Your task to perform on an android device: open app "DoorDash - Dasher" (install if not already installed) Image 0: 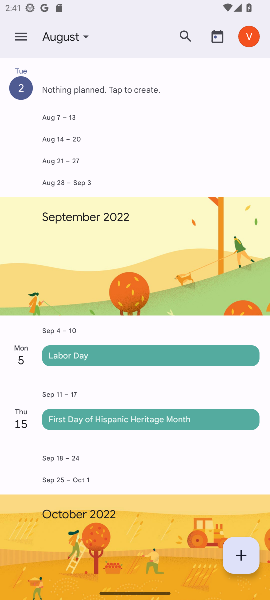
Step 0: press home button
Your task to perform on an android device: open app "DoorDash - Dasher" (install if not already installed) Image 1: 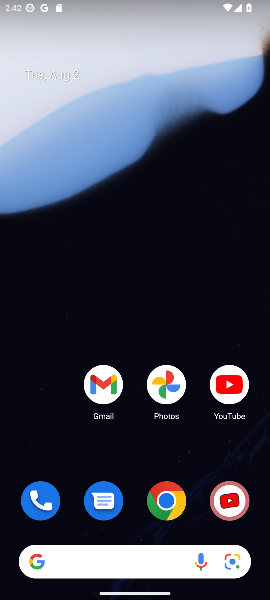
Step 1: drag from (152, 444) to (151, 11)
Your task to perform on an android device: open app "DoorDash - Dasher" (install if not already installed) Image 2: 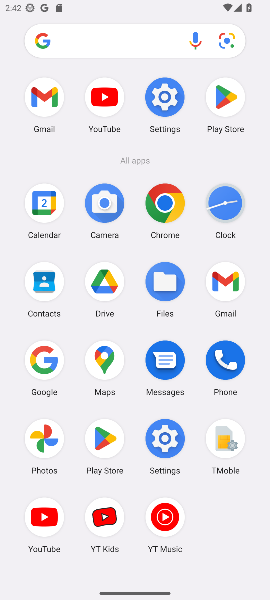
Step 2: click (221, 98)
Your task to perform on an android device: open app "DoorDash - Dasher" (install if not already installed) Image 3: 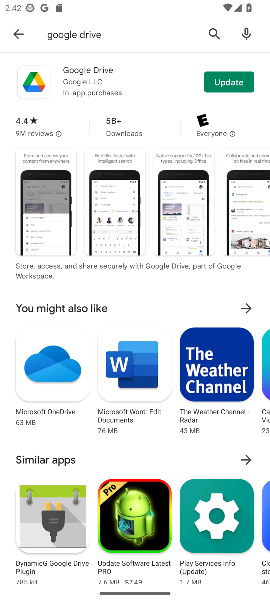
Step 3: click (217, 34)
Your task to perform on an android device: open app "DoorDash - Dasher" (install if not already installed) Image 4: 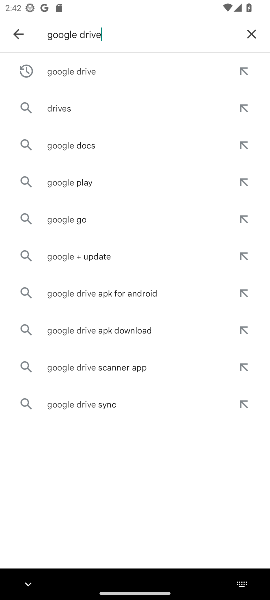
Step 4: click (254, 38)
Your task to perform on an android device: open app "DoorDash - Dasher" (install if not already installed) Image 5: 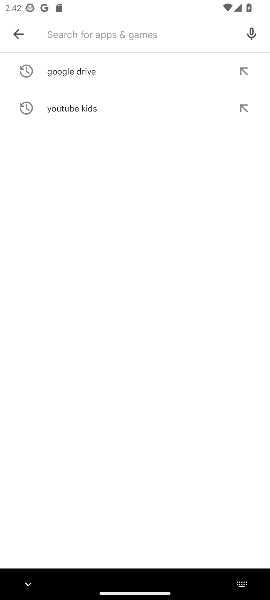
Step 5: type "DoorDash - Dasher"
Your task to perform on an android device: open app "DoorDash - Dasher" (install if not already installed) Image 6: 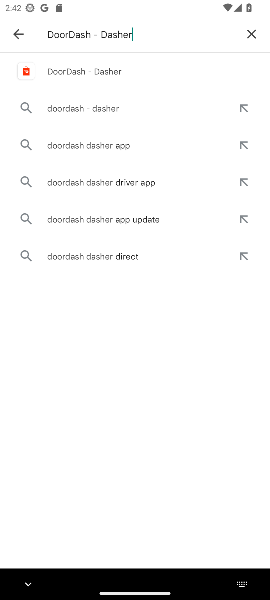
Step 6: click (61, 74)
Your task to perform on an android device: open app "DoorDash - Dasher" (install if not already installed) Image 7: 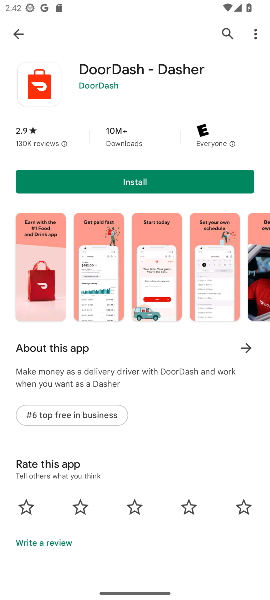
Step 7: click (125, 183)
Your task to perform on an android device: open app "DoorDash - Dasher" (install if not already installed) Image 8: 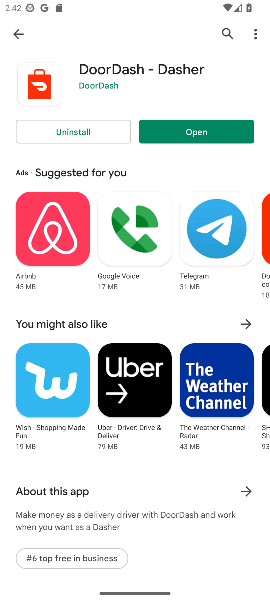
Step 8: click (212, 138)
Your task to perform on an android device: open app "DoorDash - Dasher" (install if not already installed) Image 9: 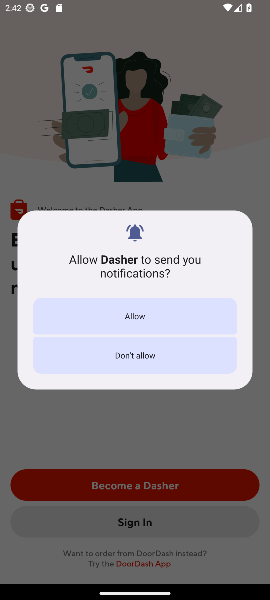
Step 9: task complete